Your task to perform on an android device: Is it going to rain today? Image 0: 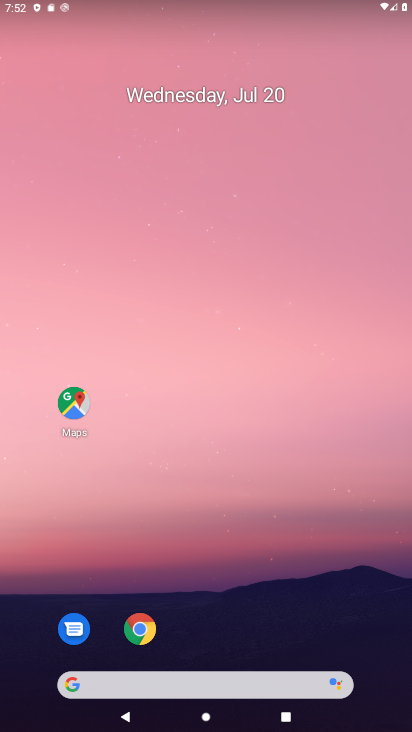
Step 0: drag from (318, 682) to (237, 29)
Your task to perform on an android device: Is it going to rain today? Image 1: 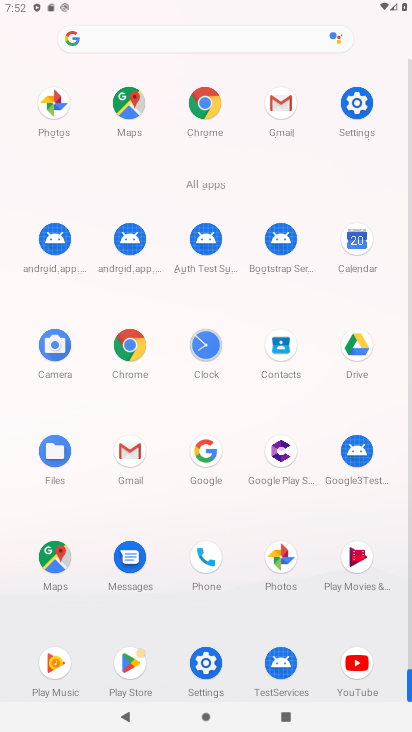
Step 1: click (210, 104)
Your task to perform on an android device: Is it going to rain today? Image 2: 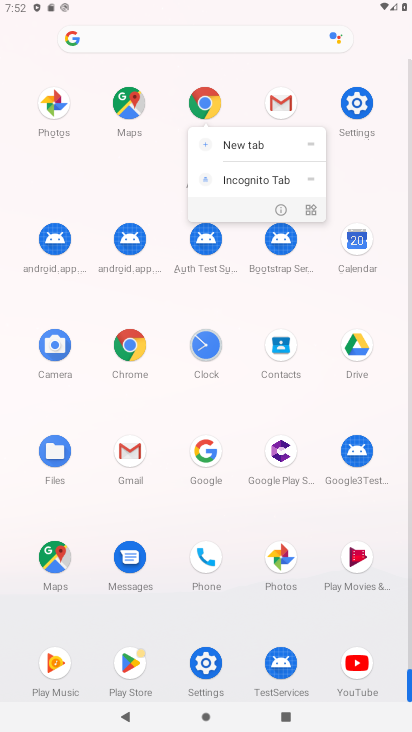
Step 2: click (211, 114)
Your task to perform on an android device: Is it going to rain today? Image 3: 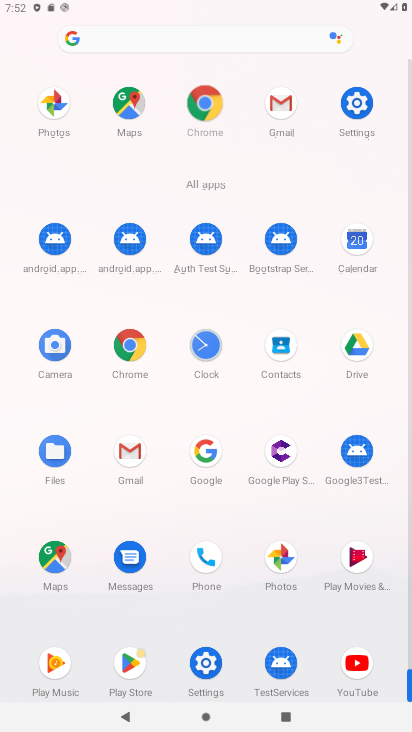
Step 3: click (212, 109)
Your task to perform on an android device: Is it going to rain today? Image 4: 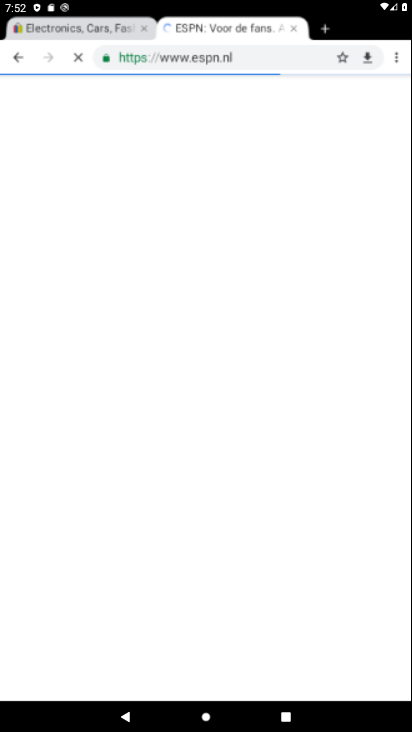
Step 4: click (213, 108)
Your task to perform on an android device: Is it going to rain today? Image 5: 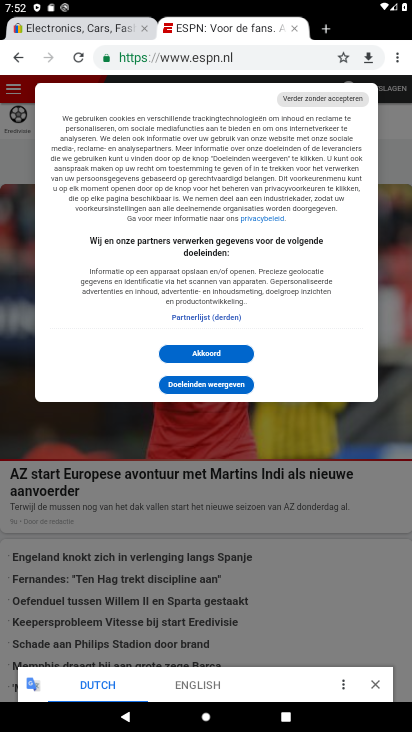
Step 5: drag from (402, 55) to (280, 51)
Your task to perform on an android device: Is it going to rain today? Image 6: 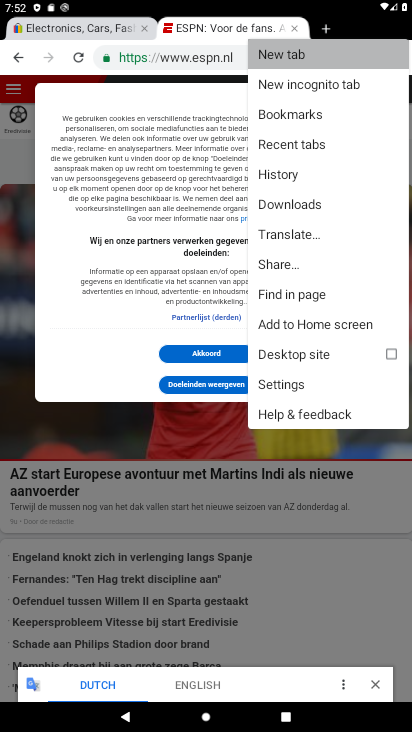
Step 6: click (281, 50)
Your task to perform on an android device: Is it going to rain today? Image 7: 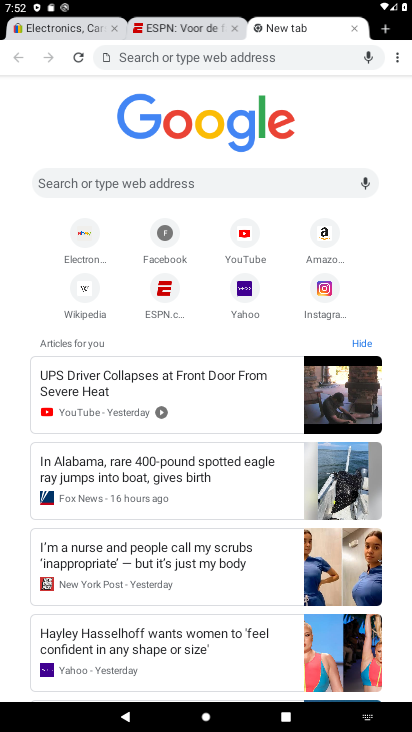
Step 7: click (82, 181)
Your task to perform on an android device: Is it going to rain today? Image 8: 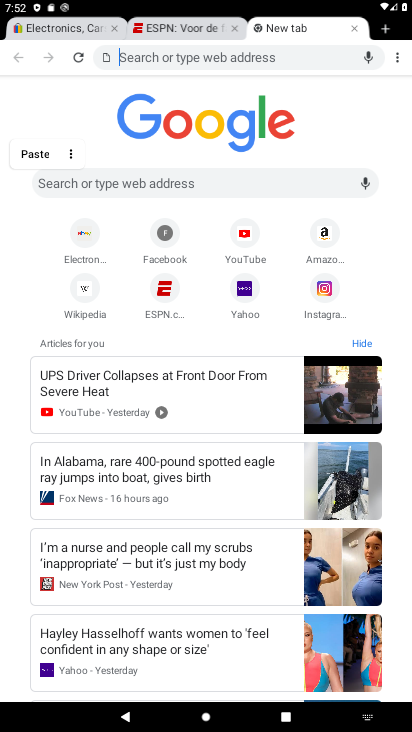
Step 8: type "is it going to rain today?"
Your task to perform on an android device: Is it going to rain today? Image 9: 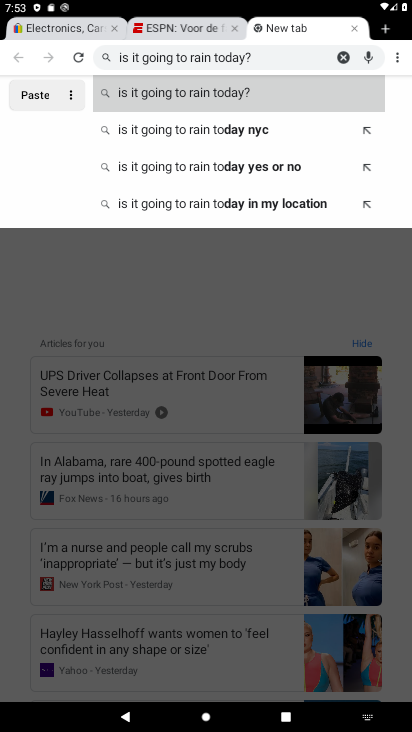
Step 9: click (238, 90)
Your task to perform on an android device: Is it going to rain today? Image 10: 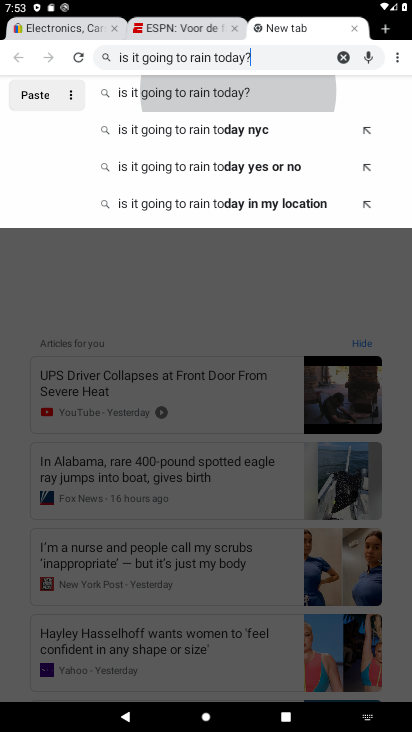
Step 10: click (238, 90)
Your task to perform on an android device: Is it going to rain today? Image 11: 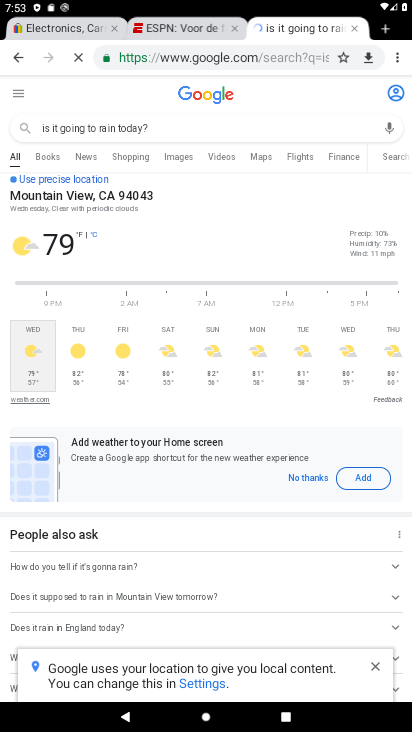
Step 11: task complete